Your task to perform on an android device: turn off location Image 0: 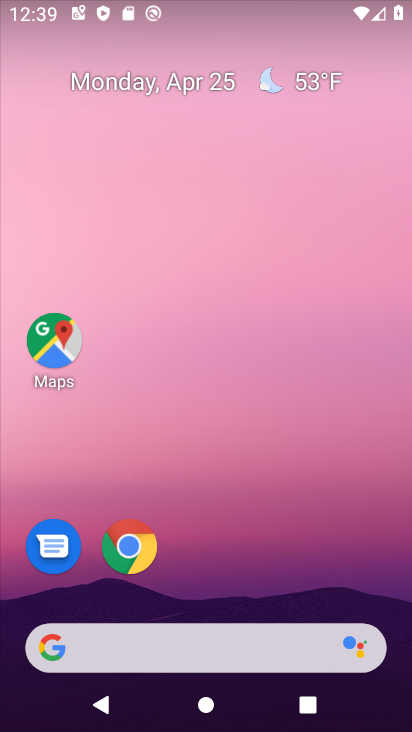
Step 0: drag from (217, 531) to (229, 149)
Your task to perform on an android device: turn off location Image 1: 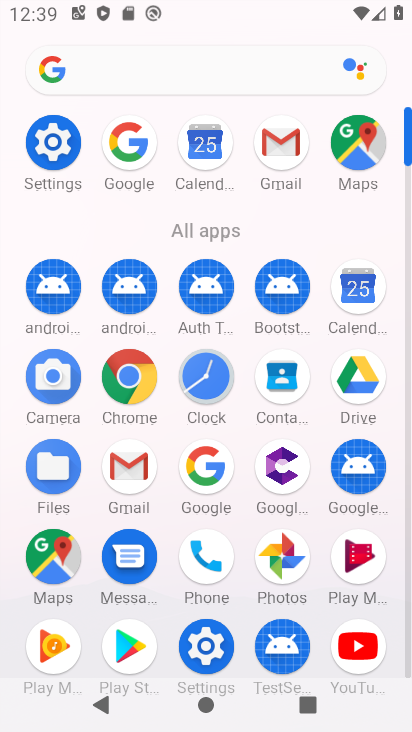
Step 1: click (53, 145)
Your task to perform on an android device: turn off location Image 2: 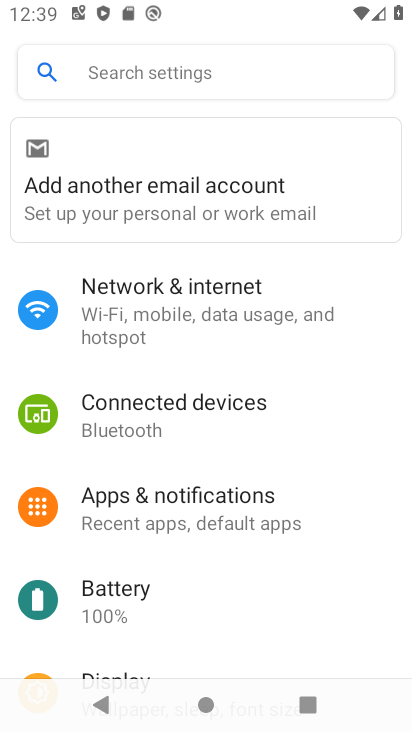
Step 2: drag from (232, 574) to (257, 277)
Your task to perform on an android device: turn off location Image 3: 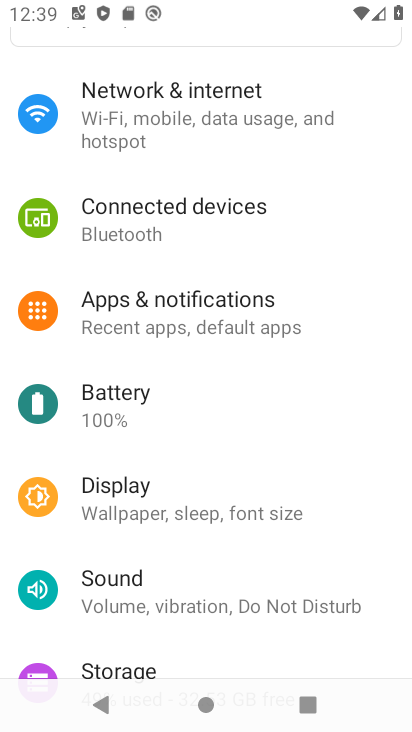
Step 3: drag from (236, 485) to (255, 252)
Your task to perform on an android device: turn off location Image 4: 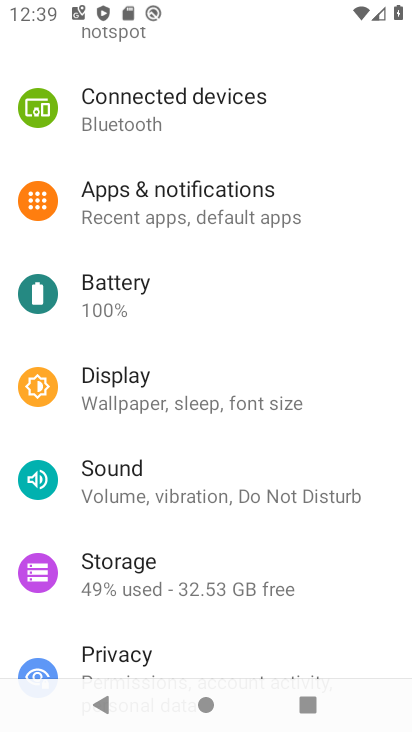
Step 4: drag from (221, 487) to (234, 205)
Your task to perform on an android device: turn off location Image 5: 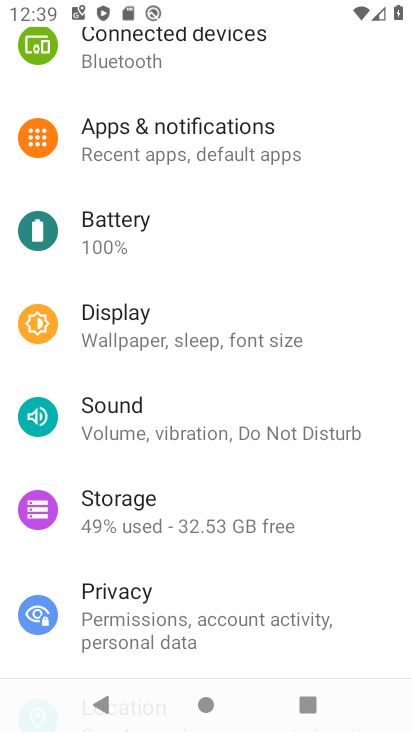
Step 5: drag from (250, 528) to (269, 259)
Your task to perform on an android device: turn off location Image 6: 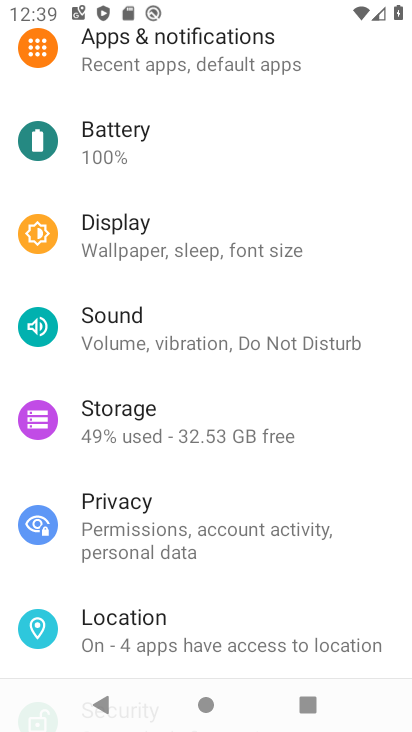
Step 6: click (173, 610)
Your task to perform on an android device: turn off location Image 7: 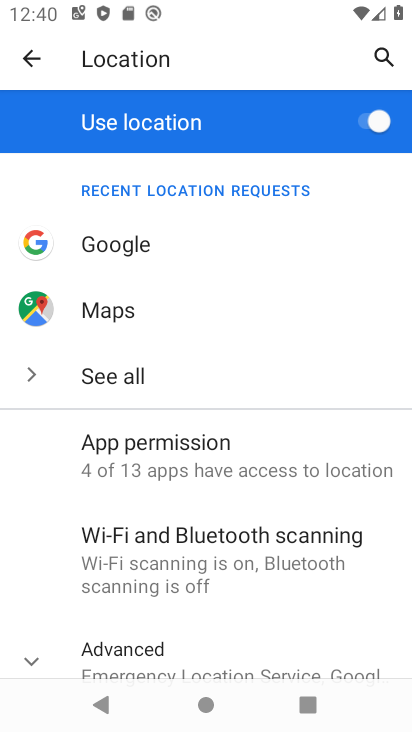
Step 7: click (358, 121)
Your task to perform on an android device: turn off location Image 8: 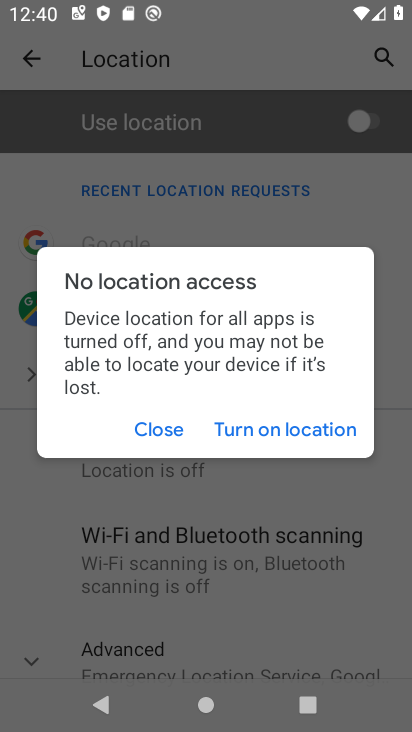
Step 8: task complete